Your task to perform on an android device: Open ESPN.com Image 0: 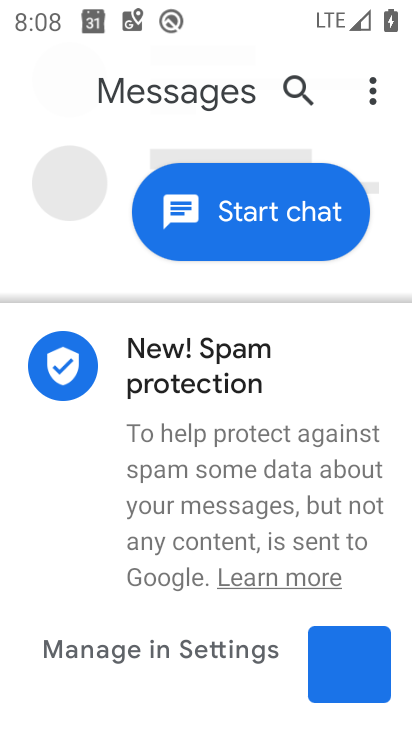
Step 0: press home button
Your task to perform on an android device: Open ESPN.com Image 1: 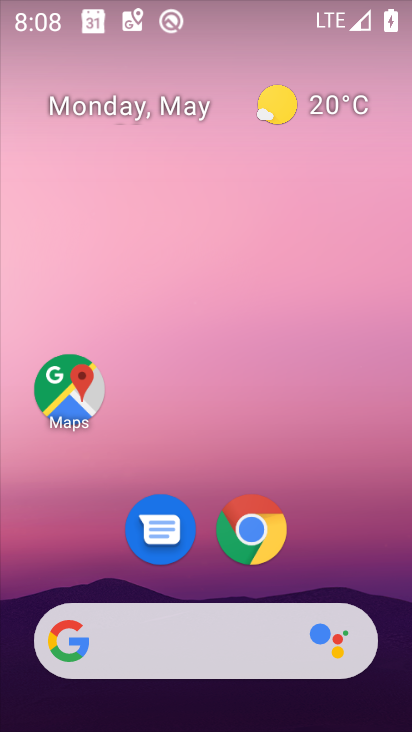
Step 1: click (252, 523)
Your task to perform on an android device: Open ESPN.com Image 2: 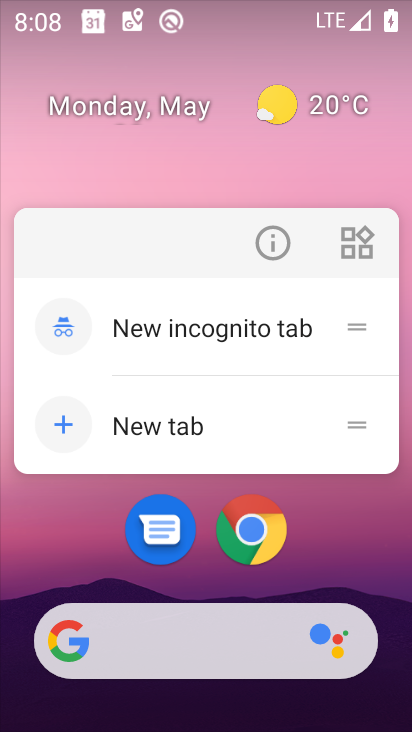
Step 2: click (251, 506)
Your task to perform on an android device: Open ESPN.com Image 3: 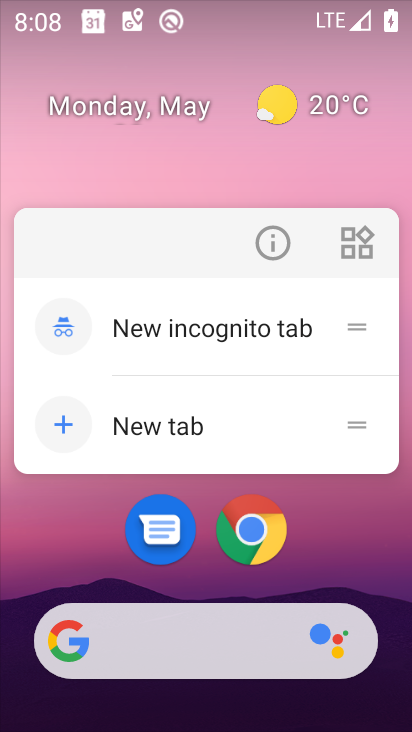
Step 3: click (257, 518)
Your task to perform on an android device: Open ESPN.com Image 4: 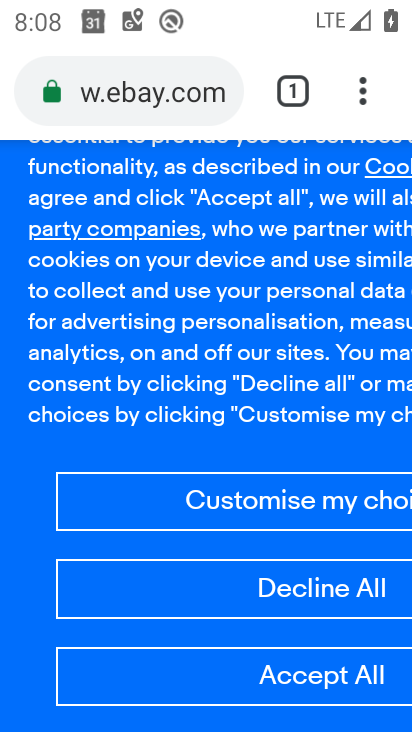
Step 4: click (286, 101)
Your task to perform on an android device: Open ESPN.com Image 5: 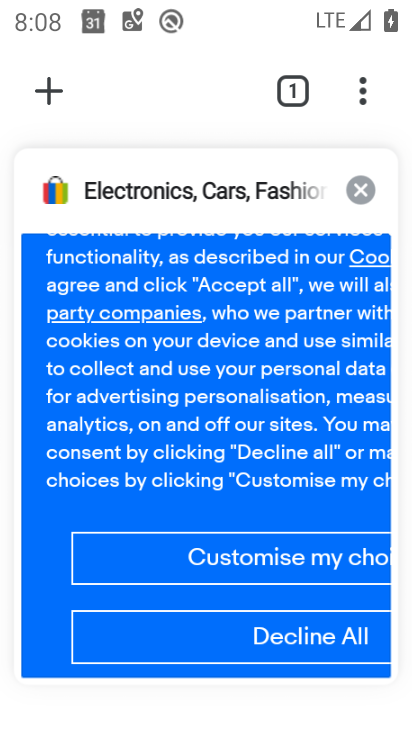
Step 5: click (363, 188)
Your task to perform on an android device: Open ESPN.com Image 6: 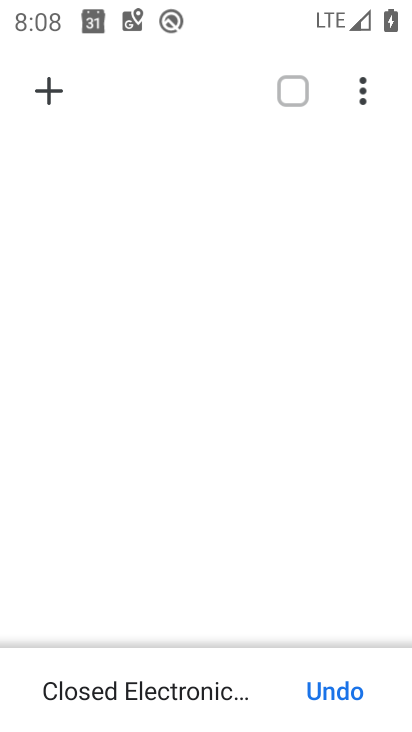
Step 6: click (50, 85)
Your task to perform on an android device: Open ESPN.com Image 7: 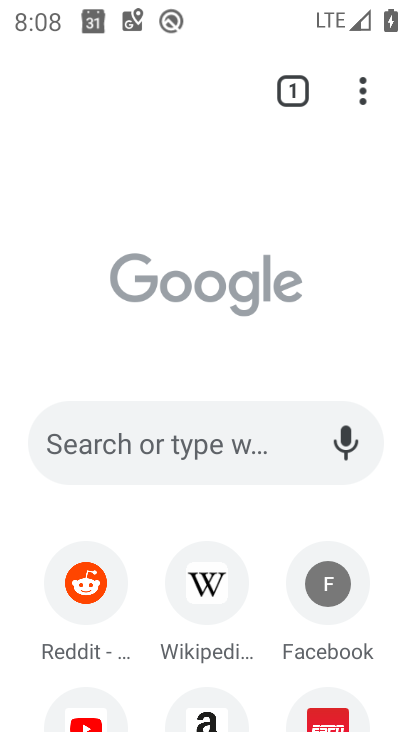
Step 7: drag from (23, 591) to (166, 187)
Your task to perform on an android device: Open ESPN.com Image 8: 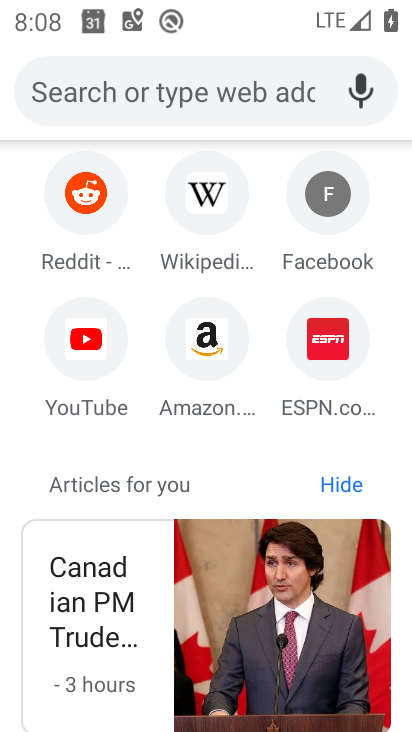
Step 8: click (329, 336)
Your task to perform on an android device: Open ESPN.com Image 9: 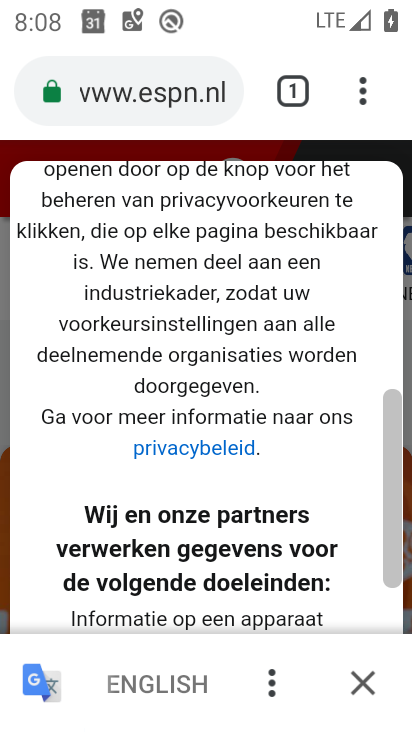
Step 9: click (365, 683)
Your task to perform on an android device: Open ESPN.com Image 10: 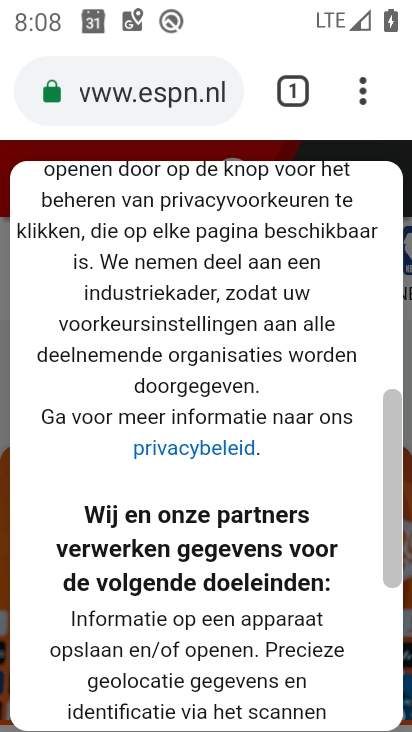
Step 10: task complete